Your task to perform on an android device: toggle notification dots Image 0: 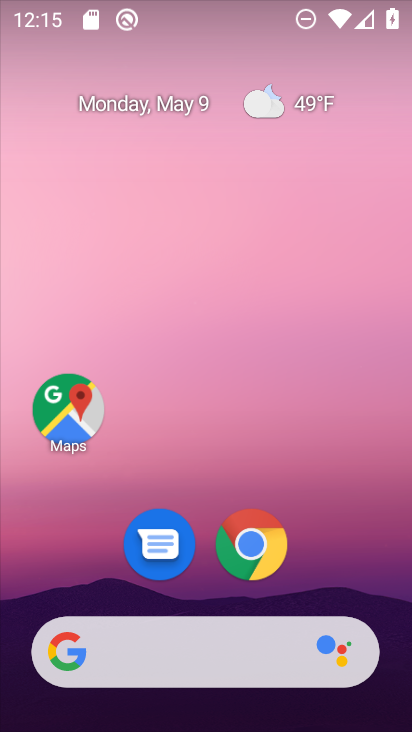
Step 0: drag from (327, 544) to (410, 99)
Your task to perform on an android device: toggle notification dots Image 1: 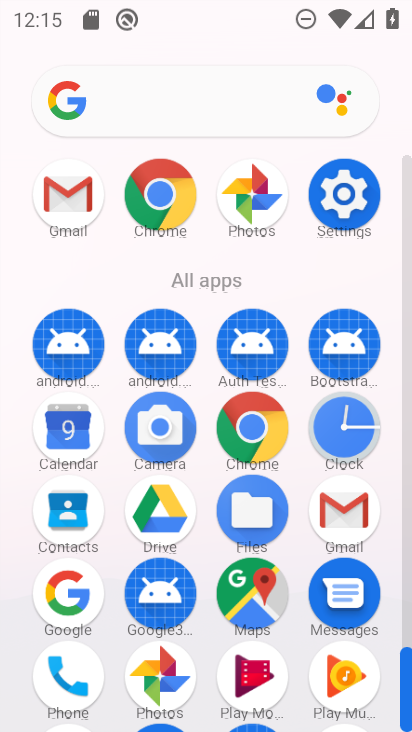
Step 1: click (342, 203)
Your task to perform on an android device: toggle notification dots Image 2: 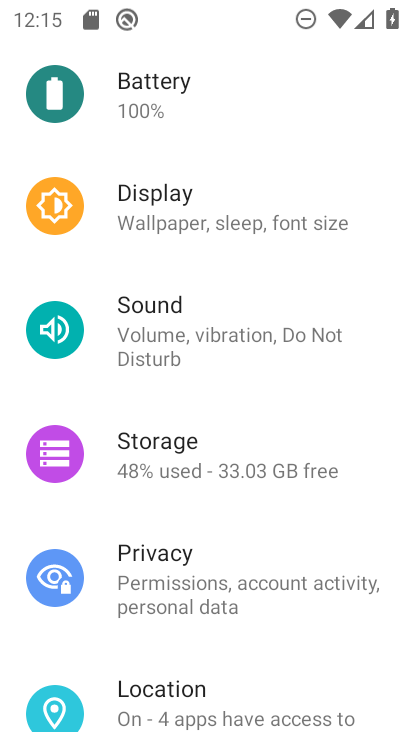
Step 2: drag from (264, 187) to (244, 631)
Your task to perform on an android device: toggle notification dots Image 3: 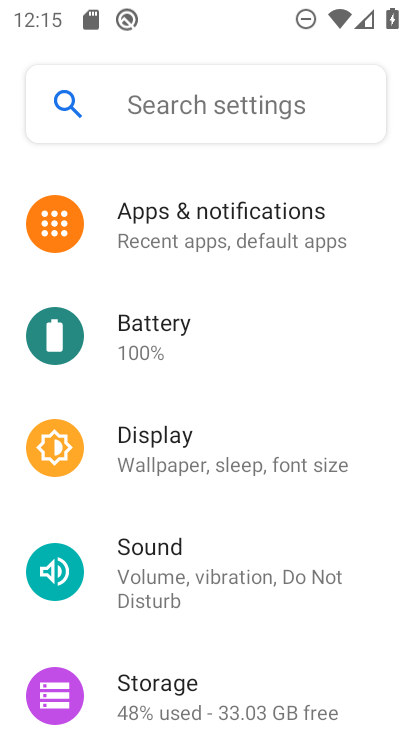
Step 3: click (251, 220)
Your task to perform on an android device: toggle notification dots Image 4: 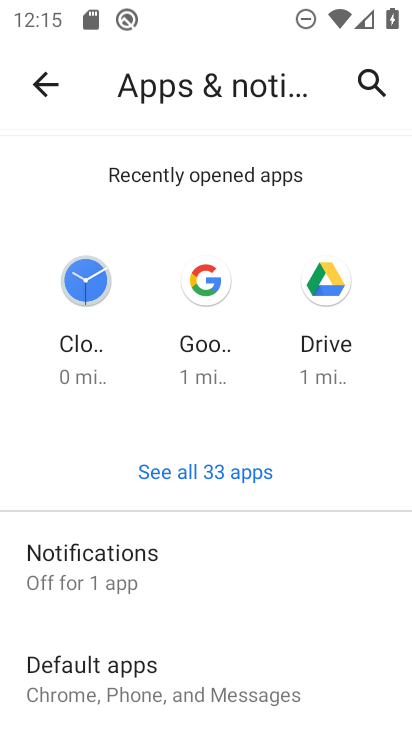
Step 4: click (41, 559)
Your task to perform on an android device: toggle notification dots Image 5: 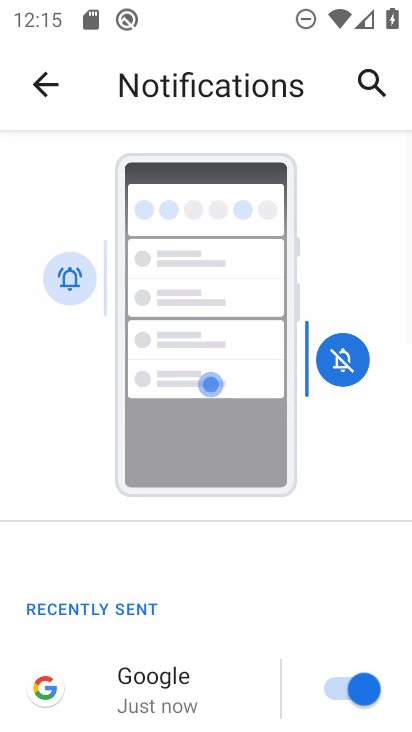
Step 5: drag from (199, 649) to (324, 195)
Your task to perform on an android device: toggle notification dots Image 6: 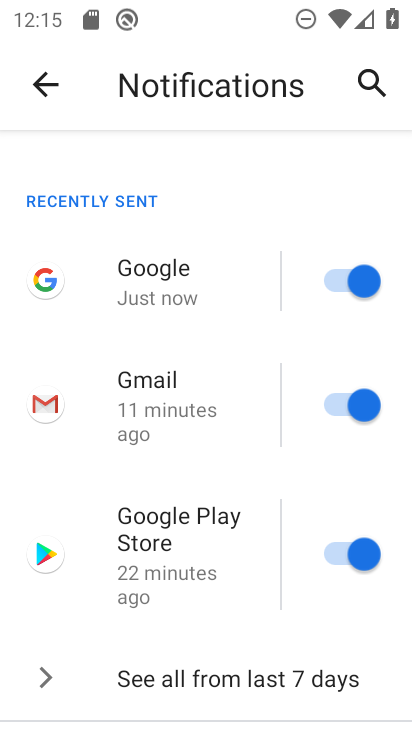
Step 6: drag from (166, 548) to (240, 224)
Your task to perform on an android device: toggle notification dots Image 7: 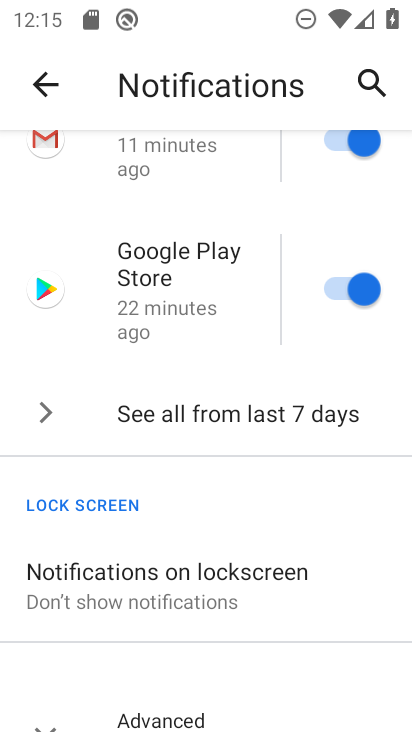
Step 7: drag from (211, 558) to (315, 212)
Your task to perform on an android device: toggle notification dots Image 8: 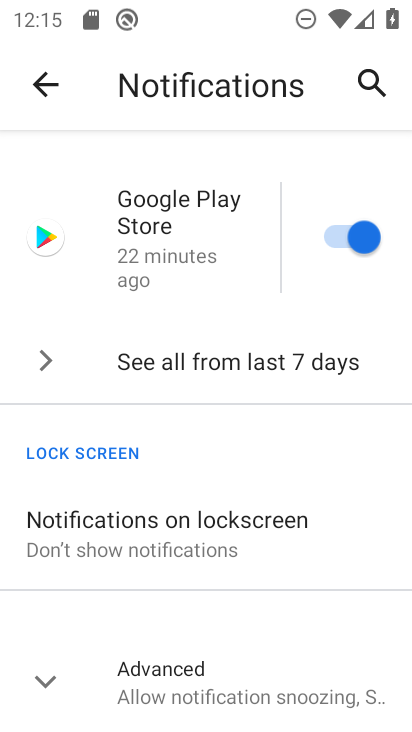
Step 8: click (222, 666)
Your task to perform on an android device: toggle notification dots Image 9: 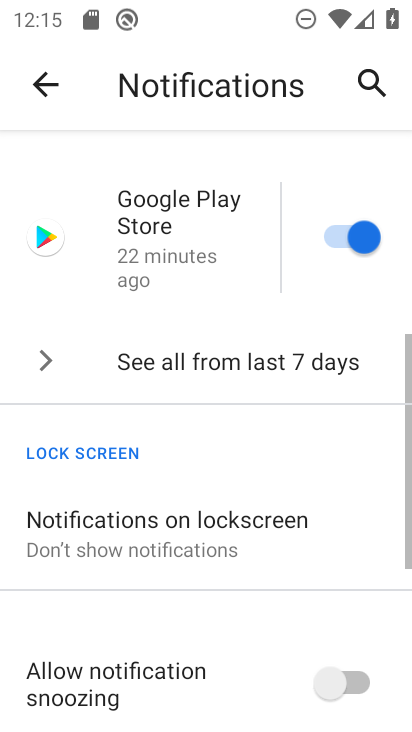
Step 9: click (287, 308)
Your task to perform on an android device: toggle notification dots Image 10: 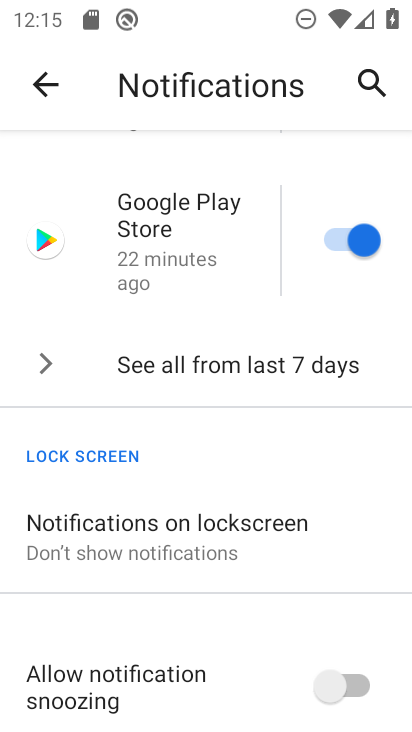
Step 10: drag from (199, 615) to (208, 286)
Your task to perform on an android device: toggle notification dots Image 11: 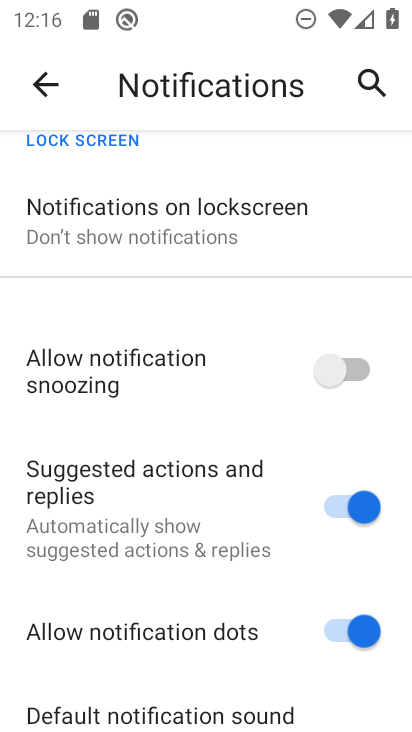
Step 11: drag from (203, 666) to (262, 383)
Your task to perform on an android device: toggle notification dots Image 12: 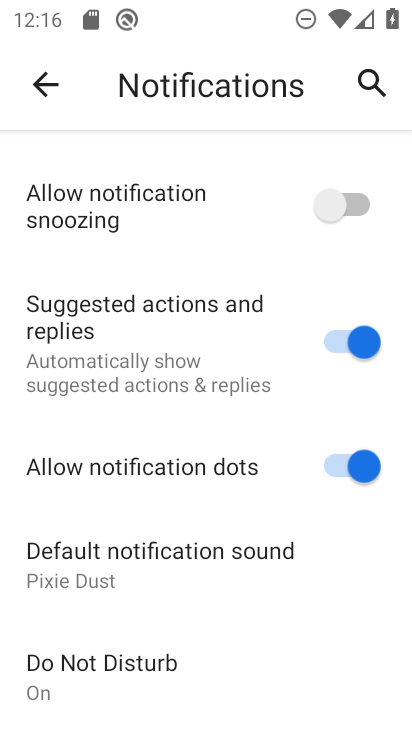
Step 12: click (344, 473)
Your task to perform on an android device: toggle notification dots Image 13: 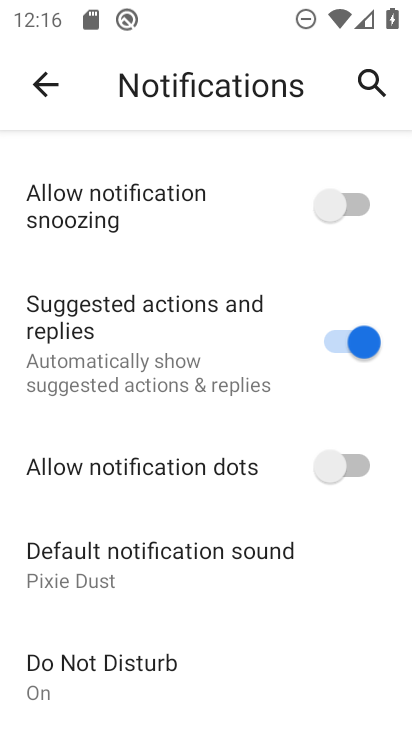
Step 13: task complete